Your task to perform on an android device: delete browsing data in the chrome app Image 0: 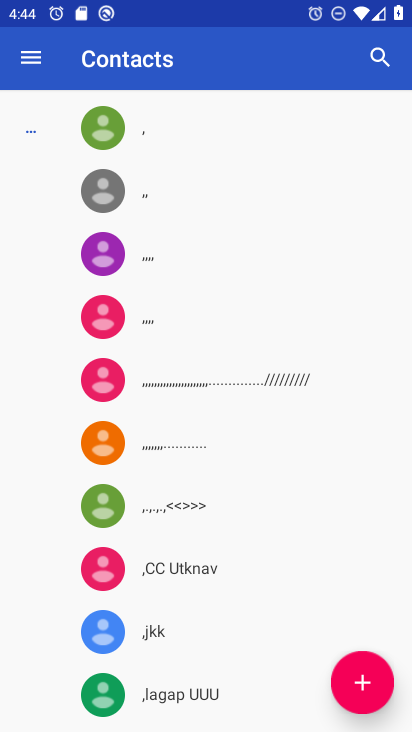
Step 0: press back button
Your task to perform on an android device: delete browsing data in the chrome app Image 1: 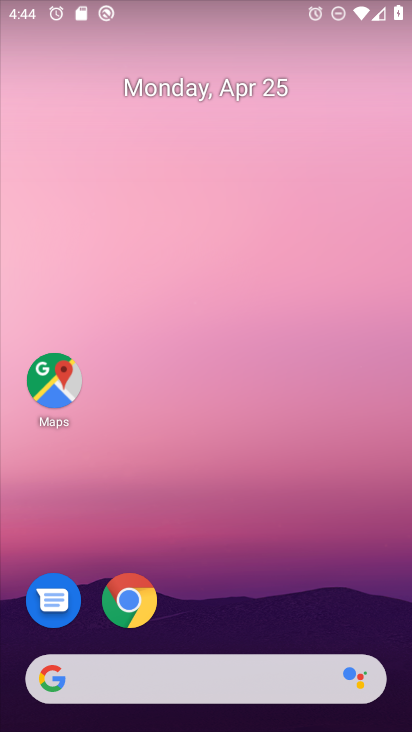
Step 1: drag from (247, 554) to (249, 37)
Your task to perform on an android device: delete browsing data in the chrome app Image 2: 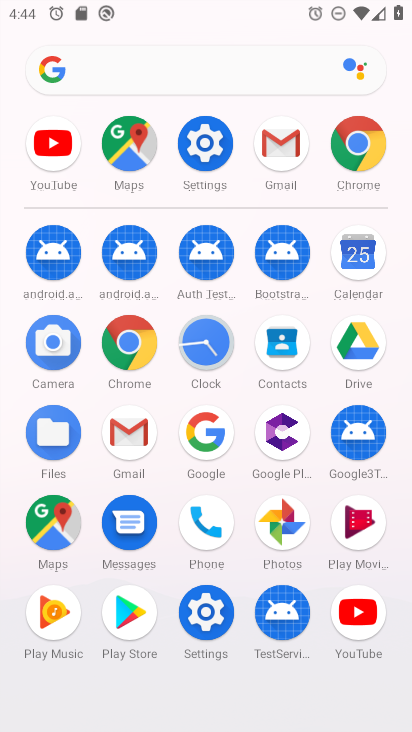
Step 2: click (124, 341)
Your task to perform on an android device: delete browsing data in the chrome app Image 3: 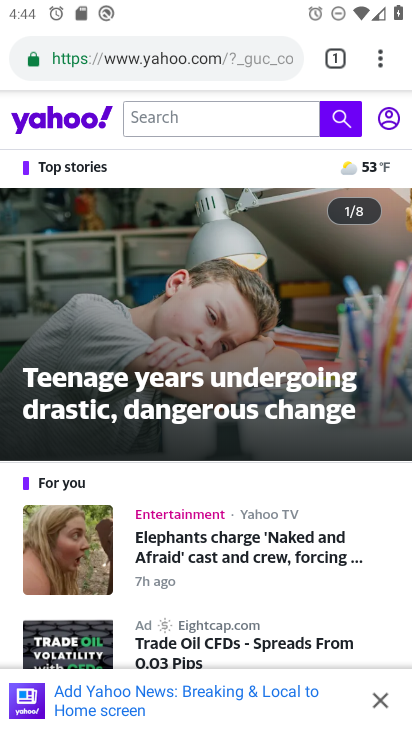
Step 3: drag from (379, 59) to (205, 396)
Your task to perform on an android device: delete browsing data in the chrome app Image 4: 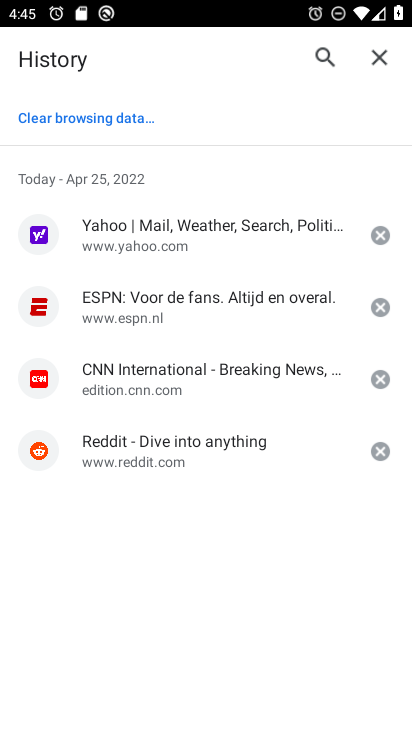
Step 4: click (121, 111)
Your task to perform on an android device: delete browsing data in the chrome app Image 5: 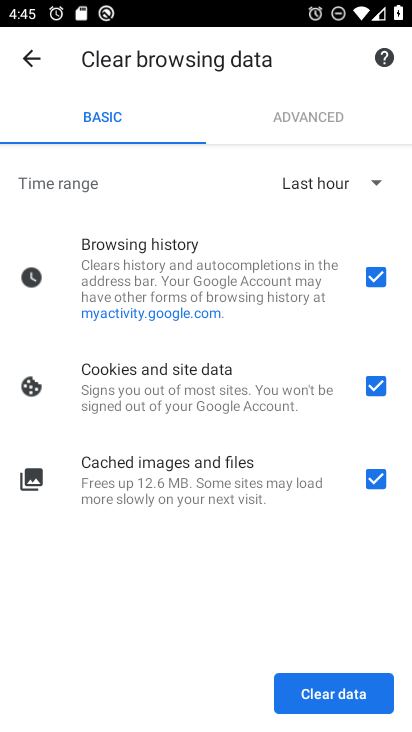
Step 5: click (346, 684)
Your task to perform on an android device: delete browsing data in the chrome app Image 6: 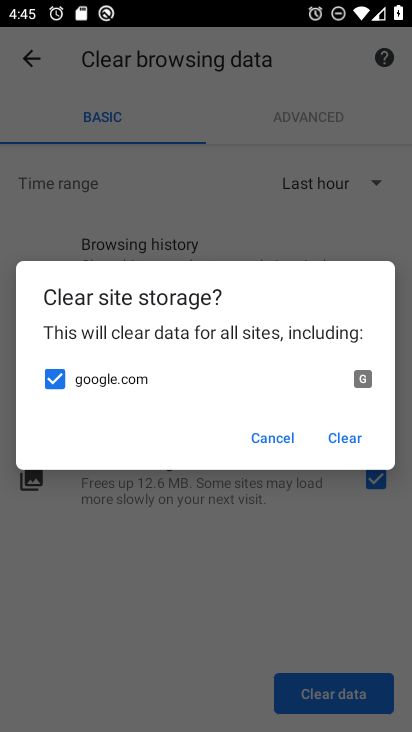
Step 6: click (350, 439)
Your task to perform on an android device: delete browsing data in the chrome app Image 7: 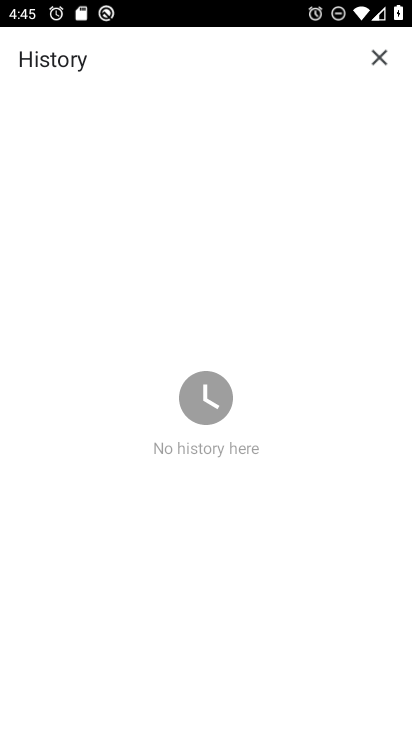
Step 7: task complete